Your task to perform on an android device: turn on improve location accuracy Image 0: 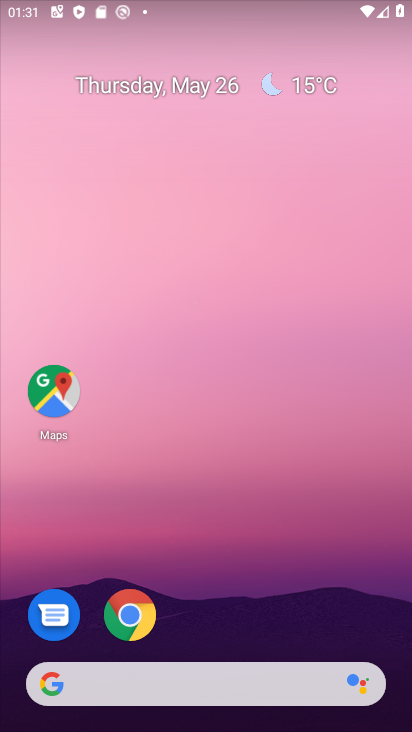
Step 0: drag from (274, 640) to (321, 56)
Your task to perform on an android device: turn on improve location accuracy Image 1: 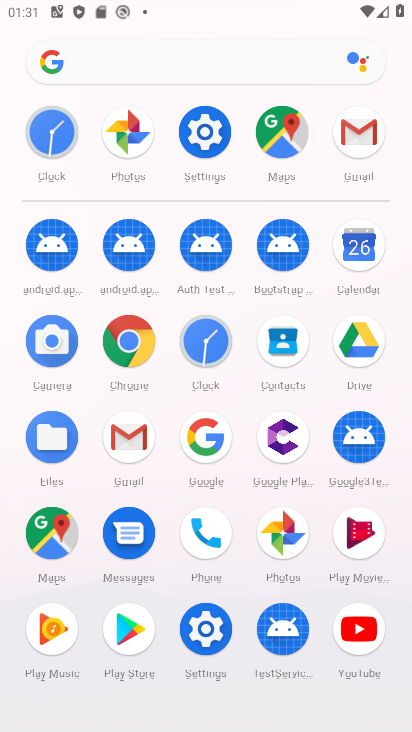
Step 1: click (209, 138)
Your task to perform on an android device: turn on improve location accuracy Image 2: 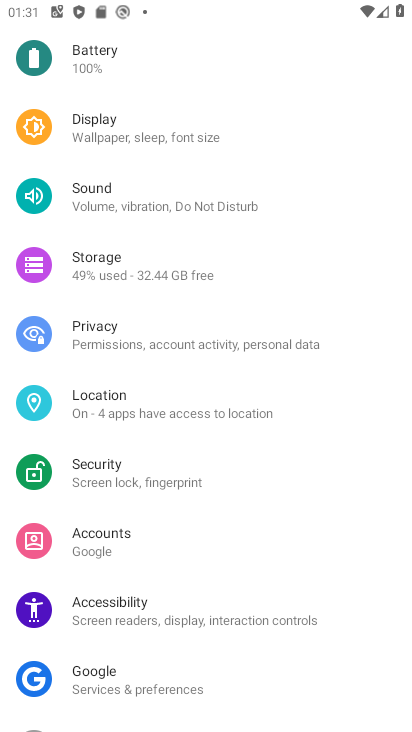
Step 2: click (88, 409)
Your task to perform on an android device: turn on improve location accuracy Image 3: 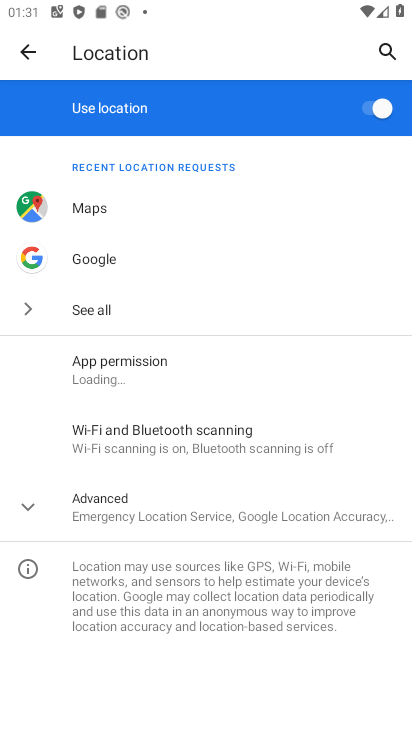
Step 3: click (103, 514)
Your task to perform on an android device: turn on improve location accuracy Image 4: 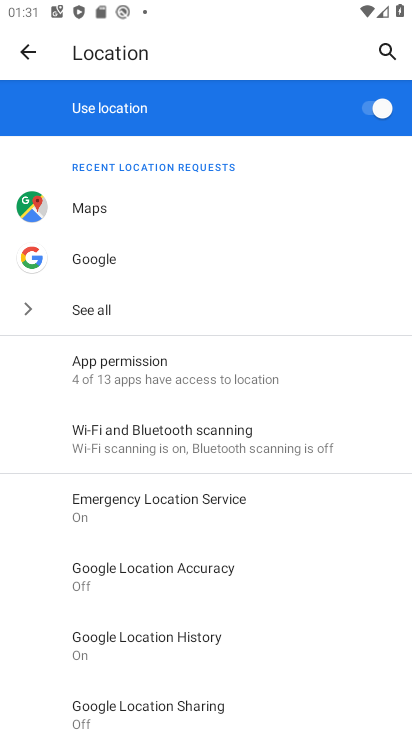
Step 4: click (172, 568)
Your task to perform on an android device: turn on improve location accuracy Image 5: 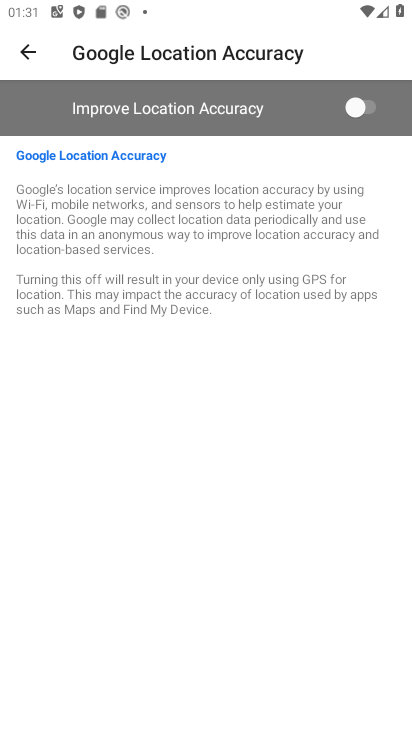
Step 5: click (348, 111)
Your task to perform on an android device: turn on improve location accuracy Image 6: 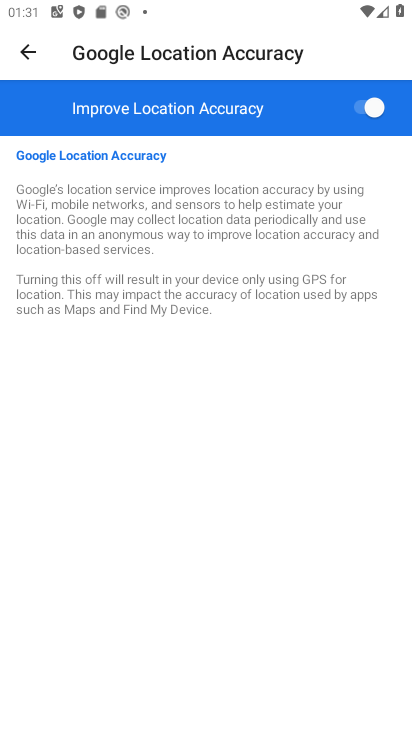
Step 6: task complete